Your task to perform on an android device: View the shopping cart on walmart. Add beats solo 3 to the cart on walmart, then select checkout. Image 0: 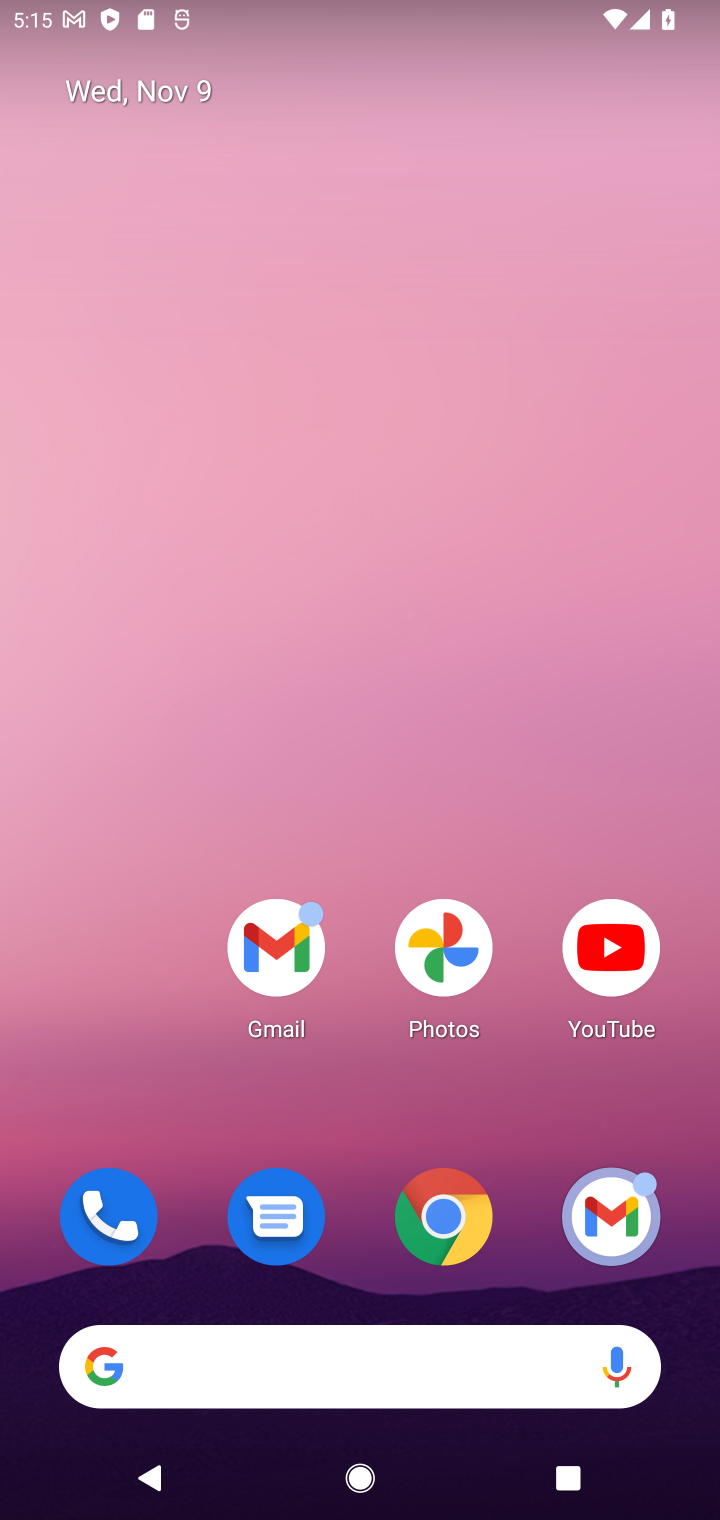
Step 0: drag from (347, 1136) to (374, 163)
Your task to perform on an android device: View the shopping cart on walmart. Add beats solo 3 to the cart on walmart, then select checkout. Image 1: 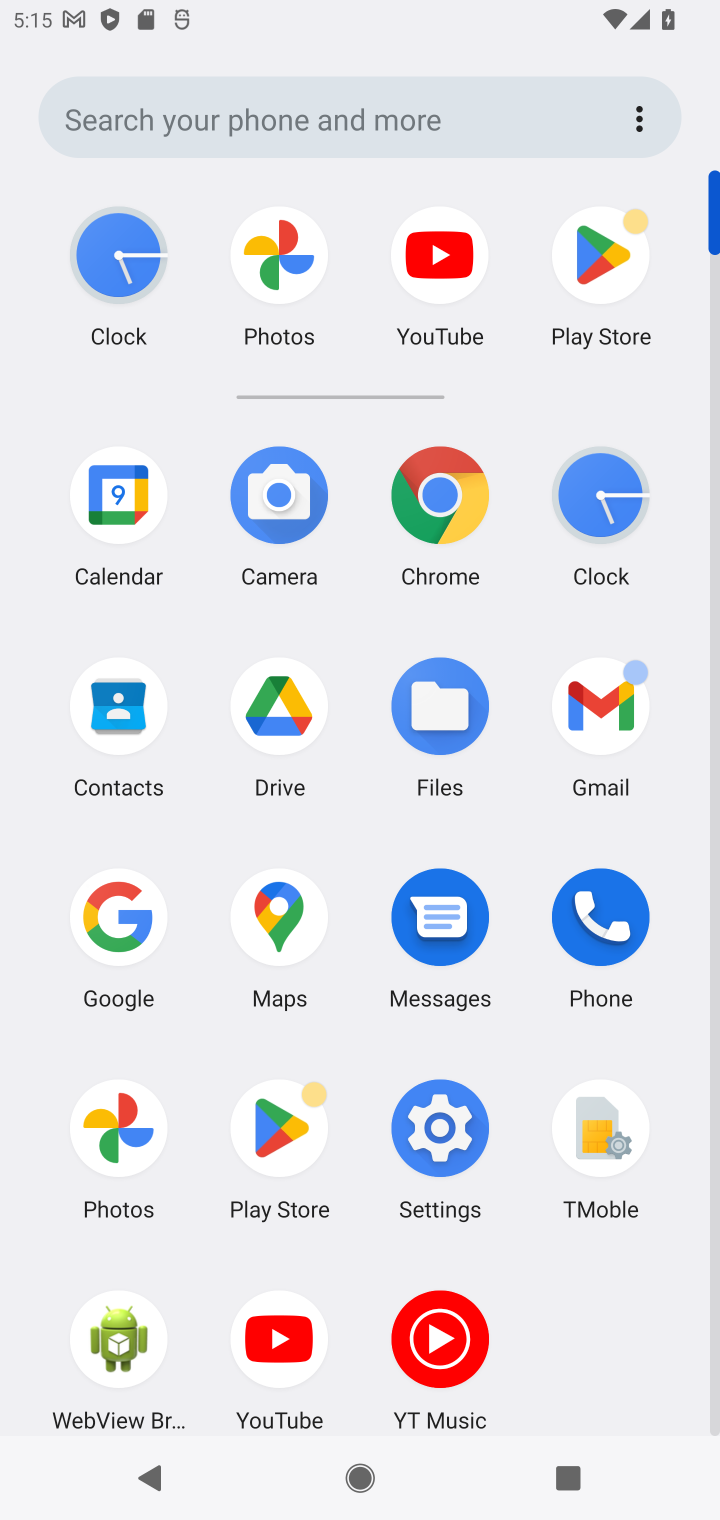
Step 1: click (442, 496)
Your task to perform on an android device: View the shopping cart on walmart. Add beats solo 3 to the cart on walmart, then select checkout. Image 2: 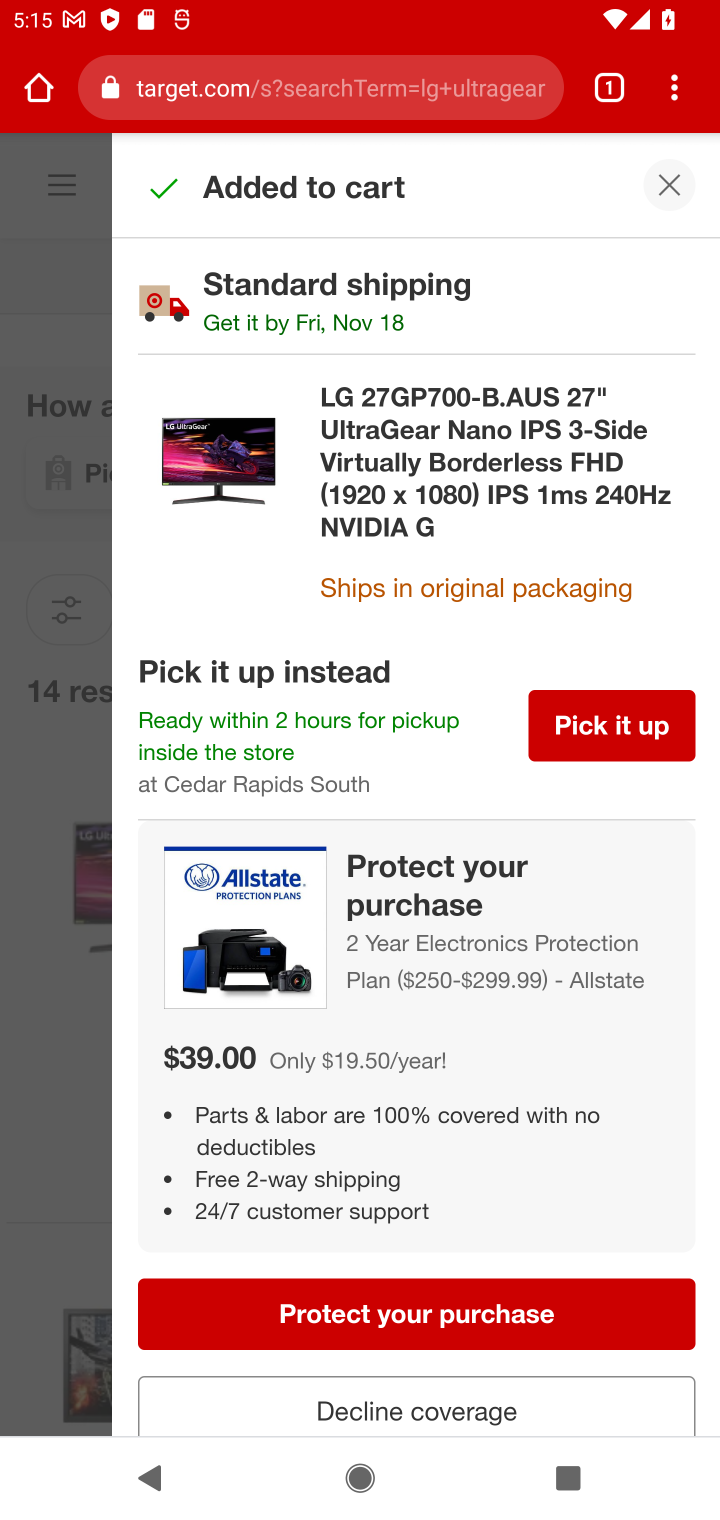
Step 2: click (325, 101)
Your task to perform on an android device: View the shopping cart on walmart. Add beats solo 3 to the cart on walmart, then select checkout. Image 3: 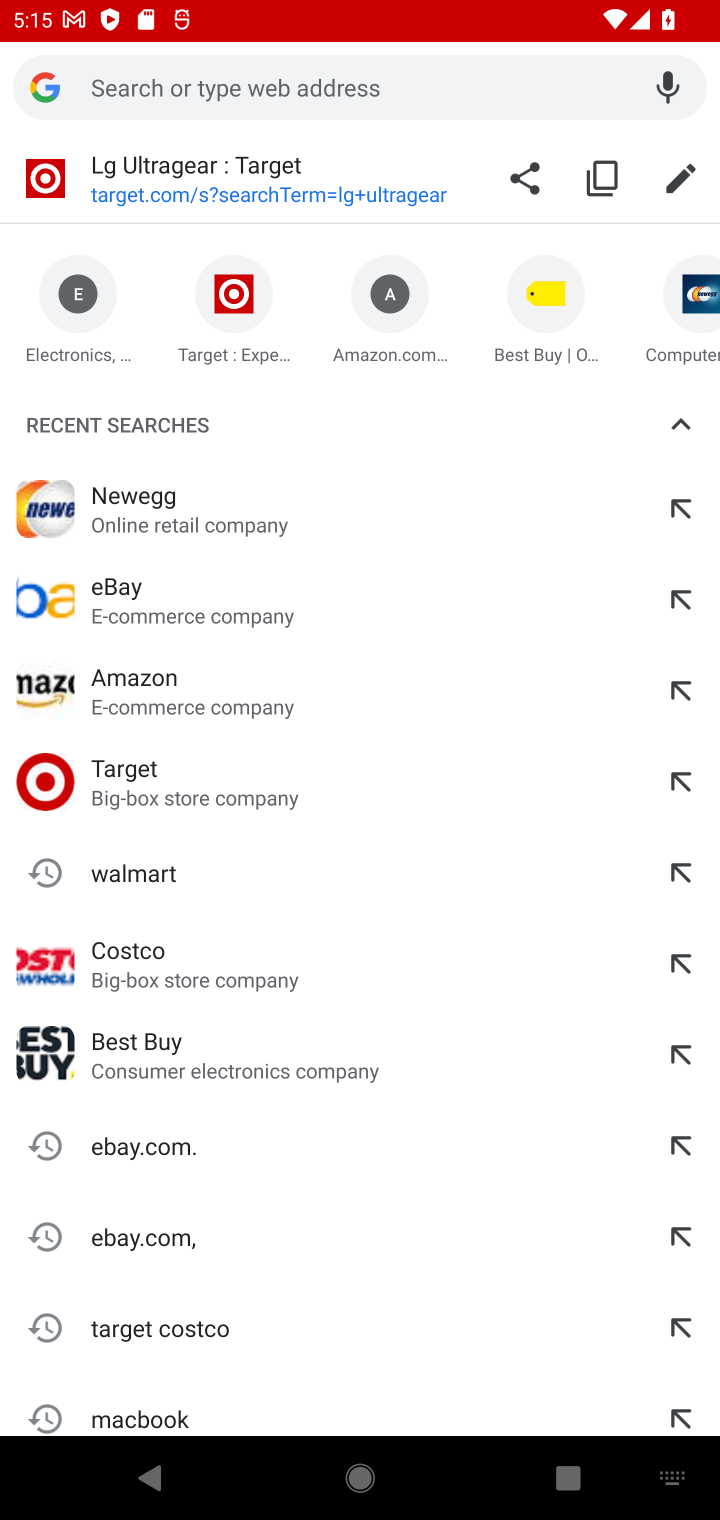
Step 3: type "walmart.com"
Your task to perform on an android device: View the shopping cart on walmart. Add beats solo 3 to the cart on walmart, then select checkout. Image 4: 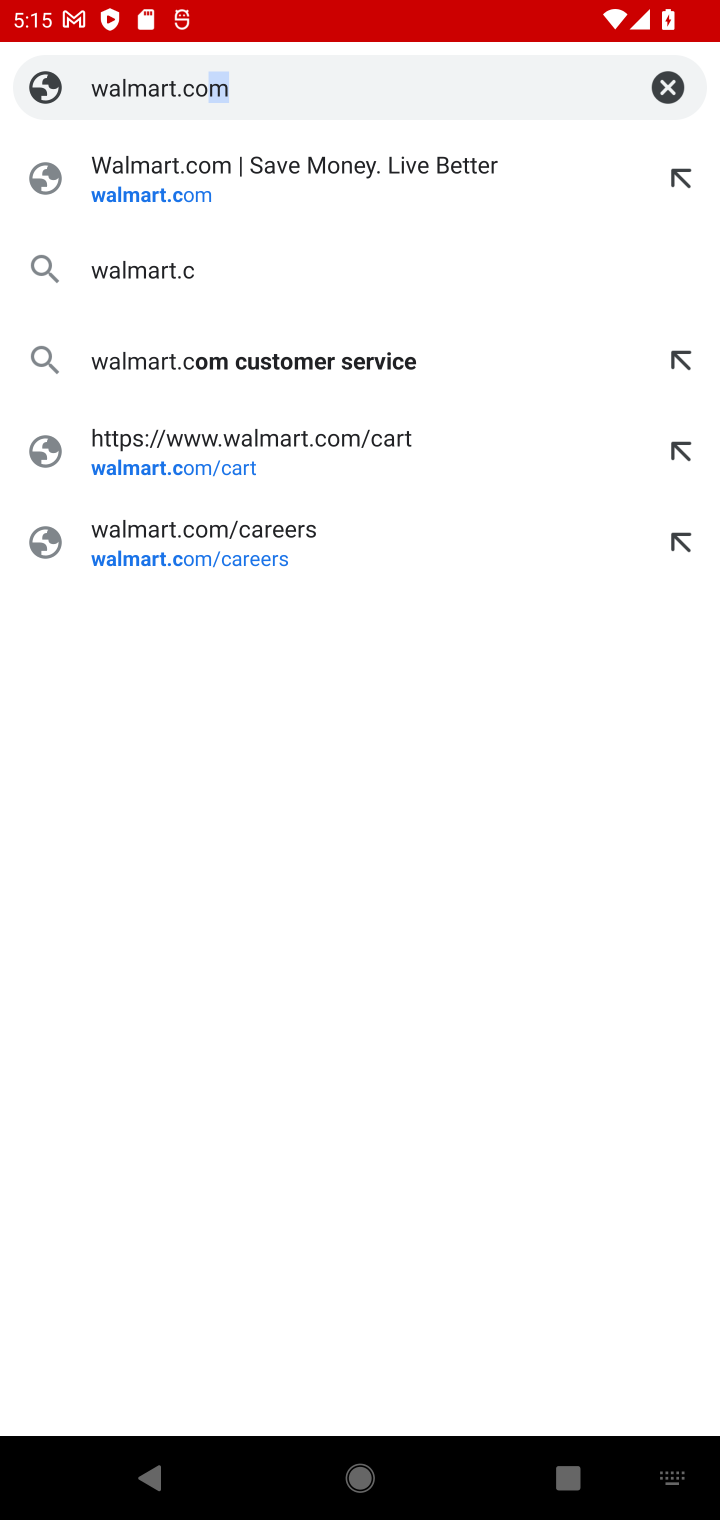
Step 4: press enter
Your task to perform on an android device: View the shopping cart on walmart. Add beats solo 3 to the cart on walmart, then select checkout. Image 5: 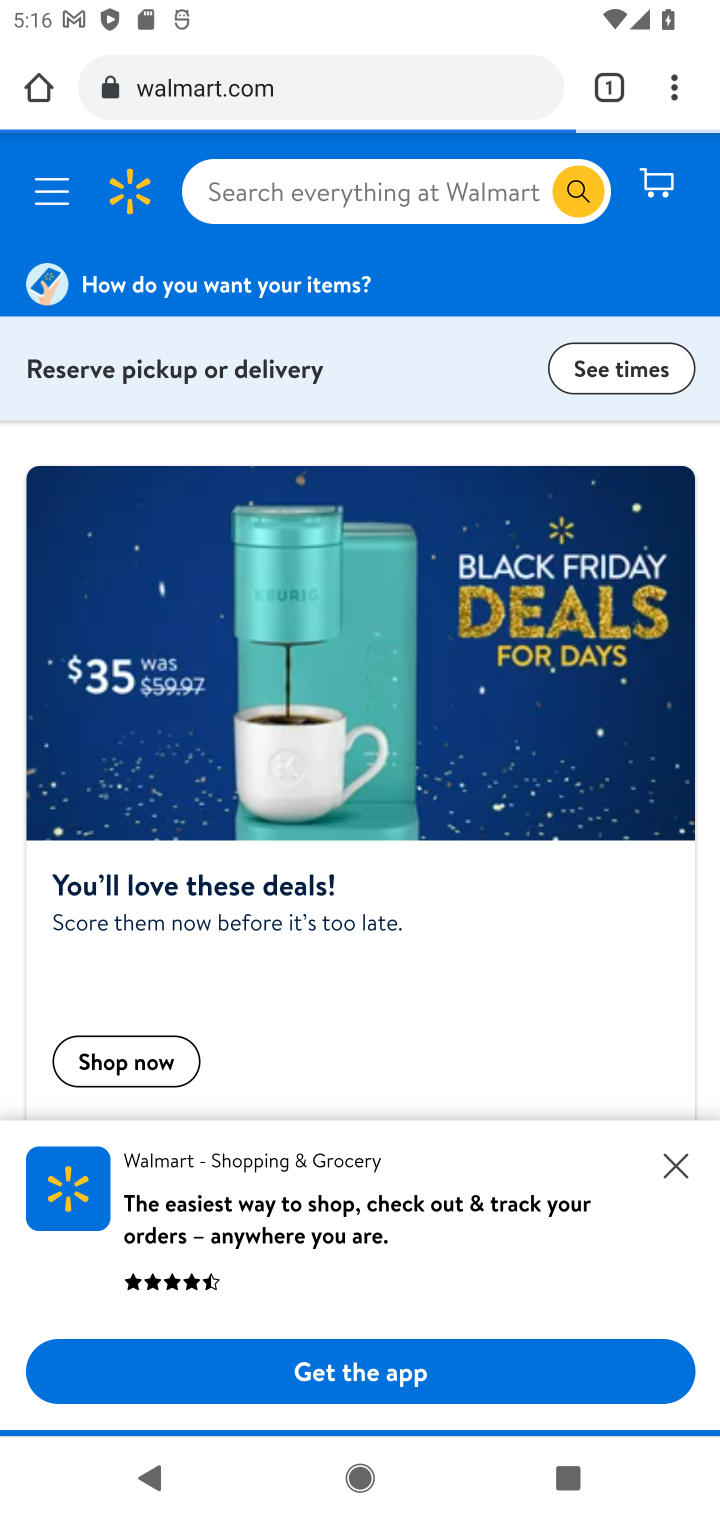
Step 5: click (665, 199)
Your task to perform on an android device: View the shopping cart on walmart. Add beats solo 3 to the cart on walmart, then select checkout. Image 6: 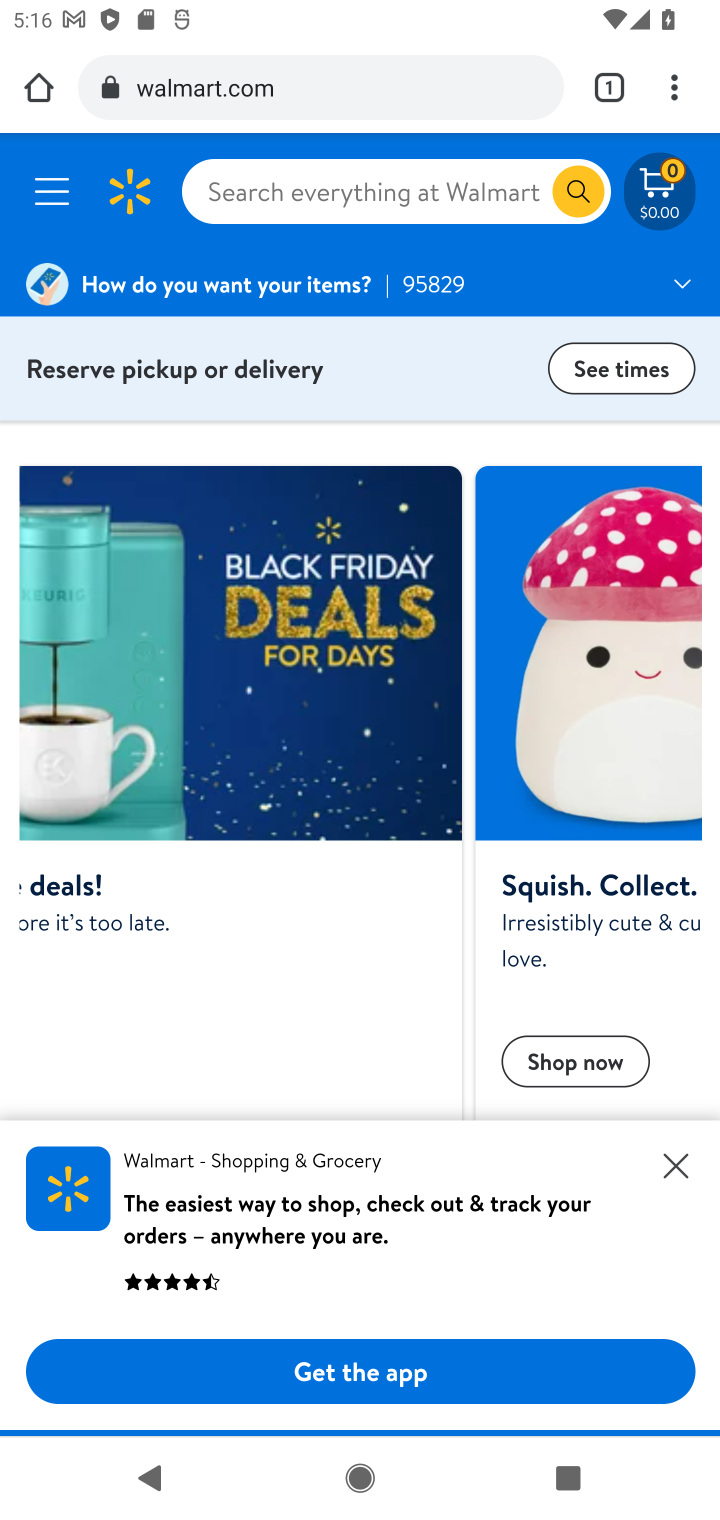
Step 6: click (656, 188)
Your task to perform on an android device: View the shopping cart on walmart. Add beats solo 3 to the cart on walmart, then select checkout. Image 7: 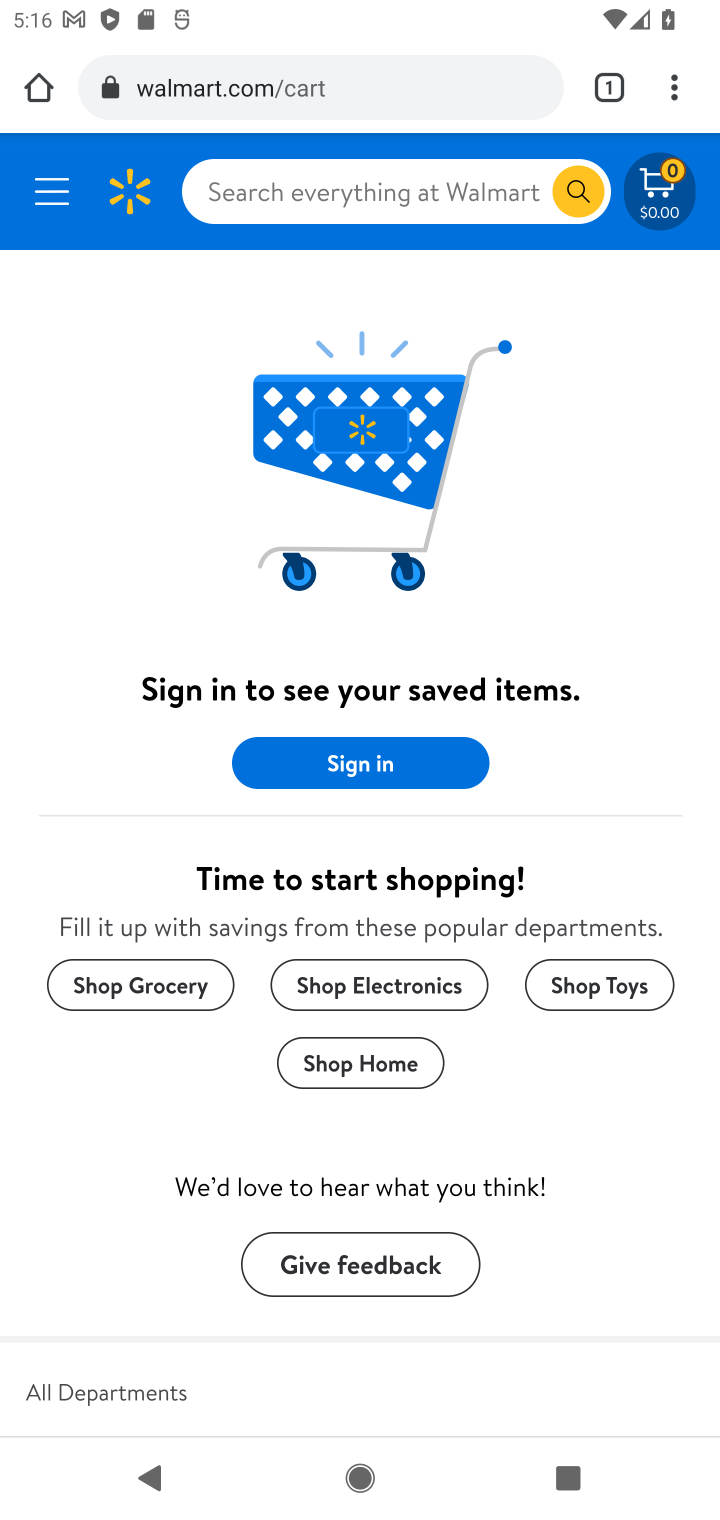
Step 7: click (465, 189)
Your task to perform on an android device: View the shopping cart on walmart. Add beats solo 3 to the cart on walmart, then select checkout. Image 8: 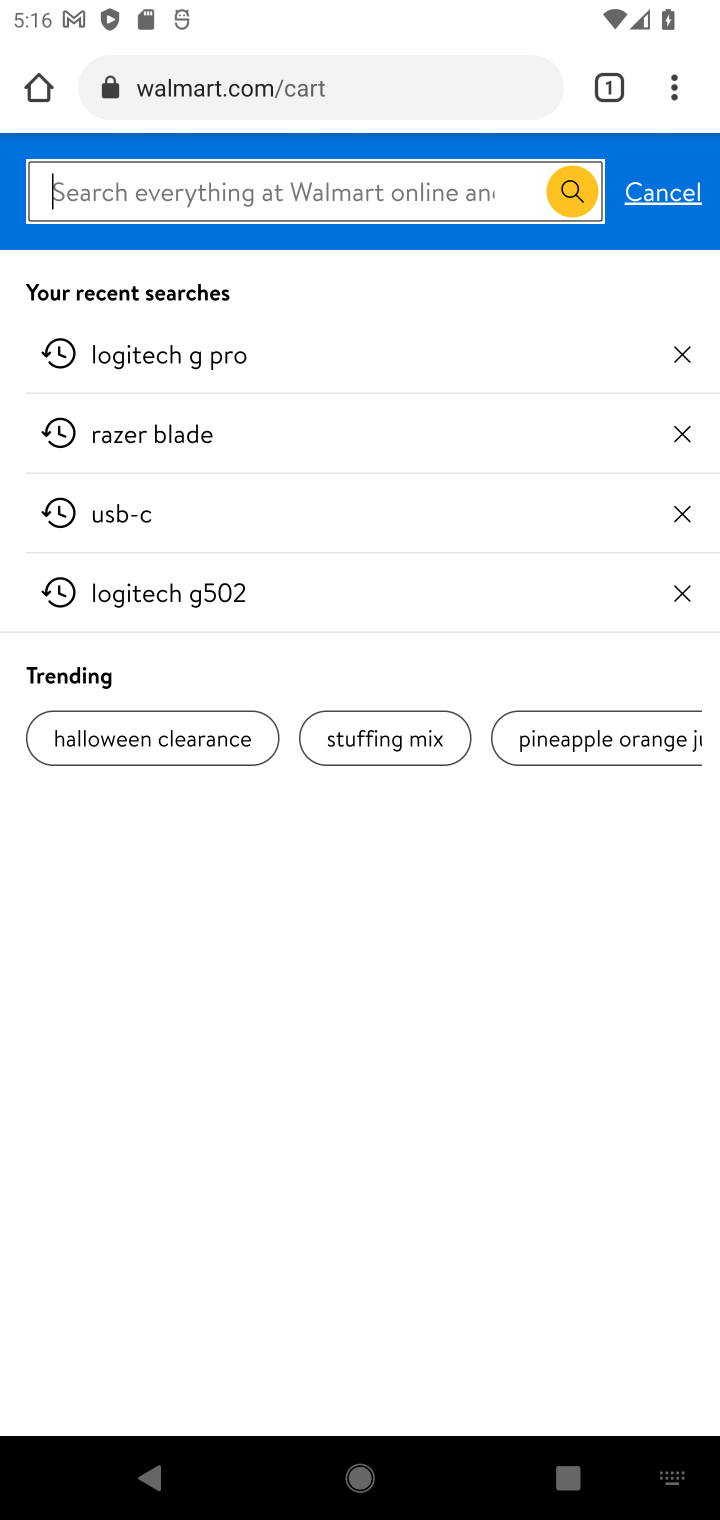
Step 8: type "beats solo 3"
Your task to perform on an android device: View the shopping cart on walmart. Add beats solo 3 to the cart on walmart, then select checkout. Image 9: 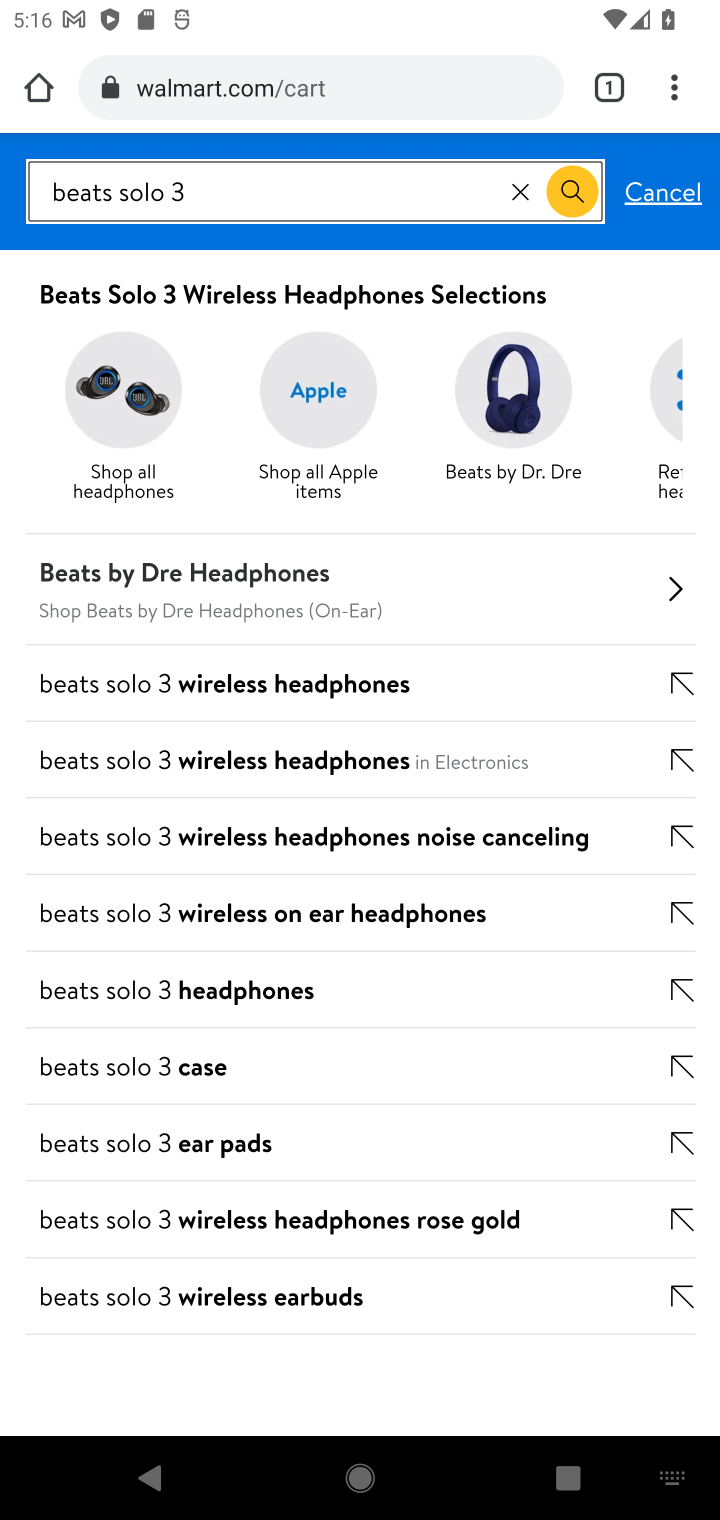
Step 9: press enter
Your task to perform on an android device: View the shopping cart on walmart. Add beats solo 3 to the cart on walmart, then select checkout. Image 10: 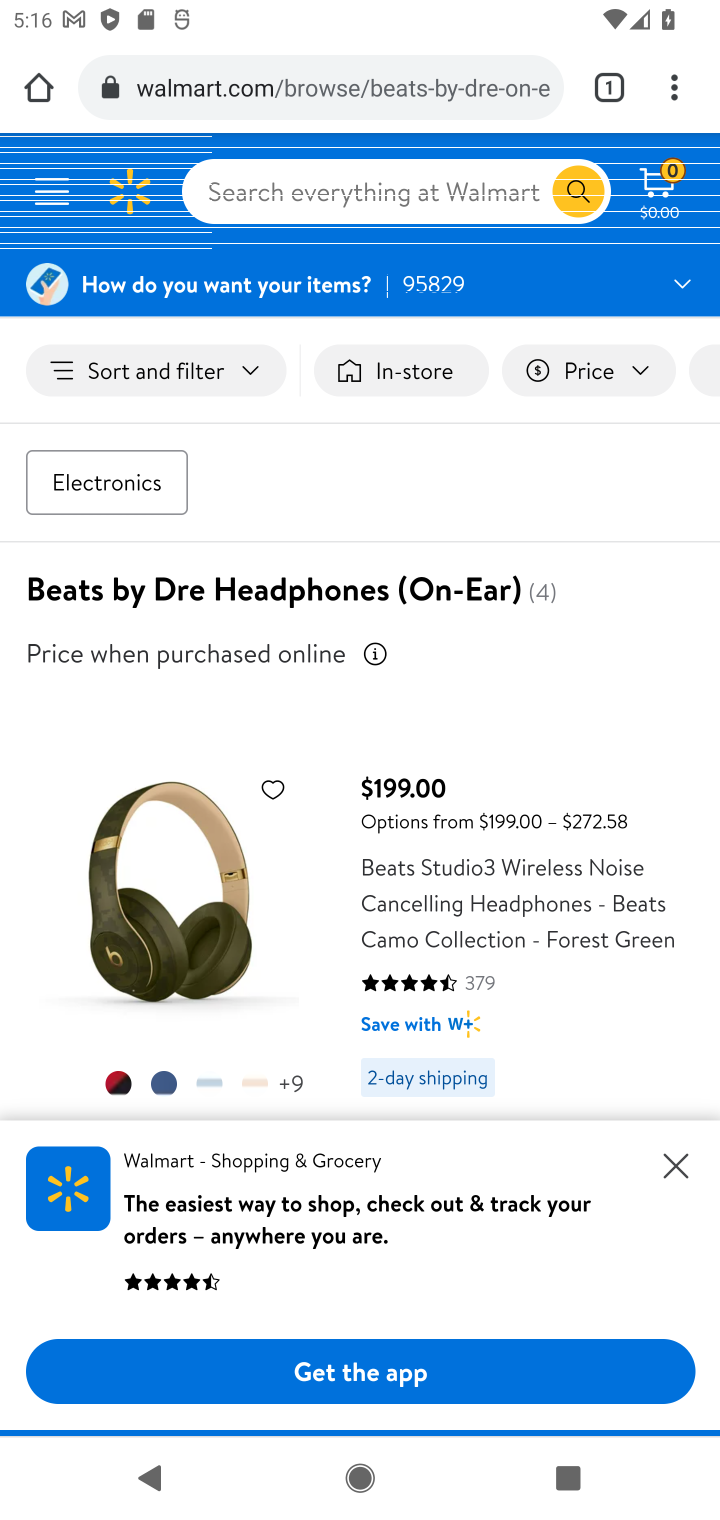
Step 10: drag from (531, 1033) to (522, 559)
Your task to perform on an android device: View the shopping cart on walmart. Add beats solo 3 to the cart on walmart, then select checkout. Image 11: 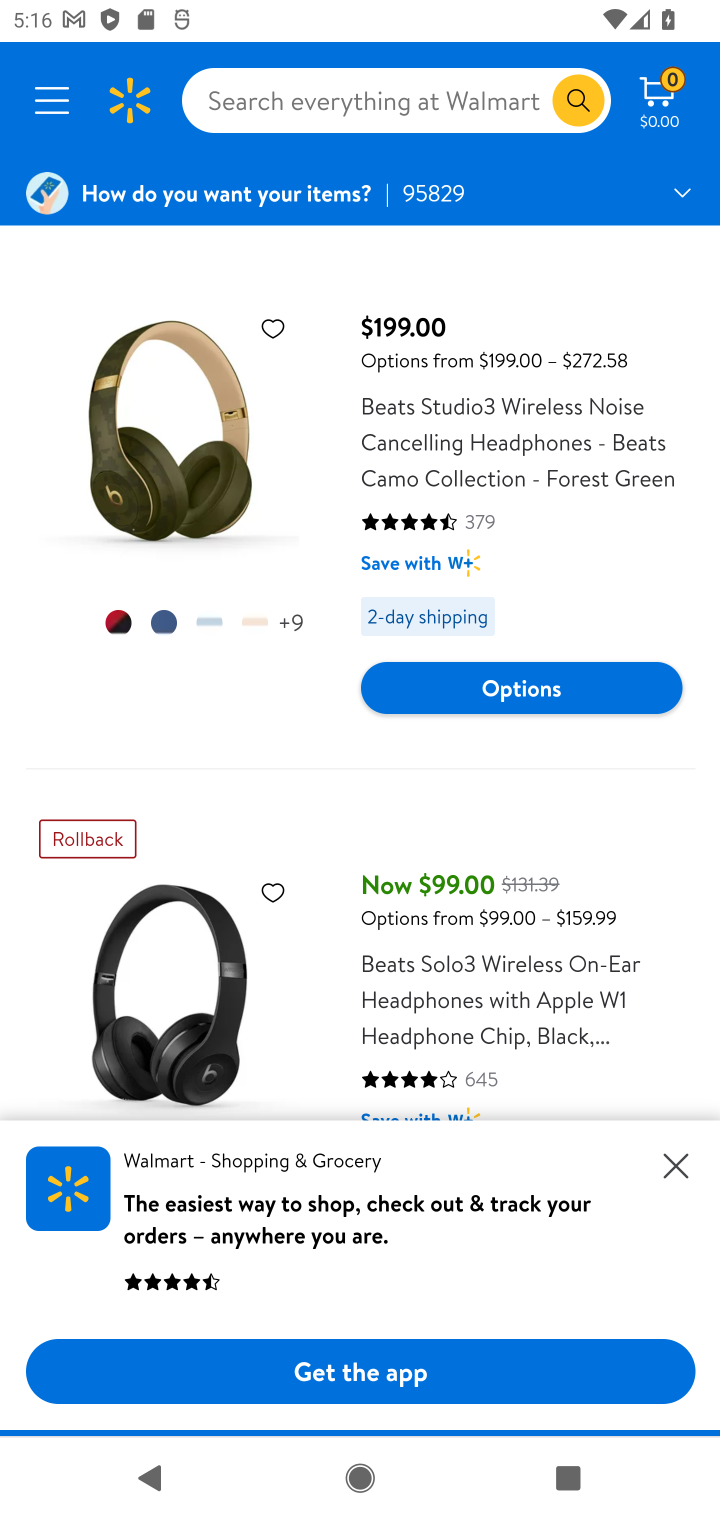
Step 11: drag from (250, 605) to (234, 713)
Your task to perform on an android device: View the shopping cart on walmart. Add beats solo 3 to the cart on walmart, then select checkout. Image 12: 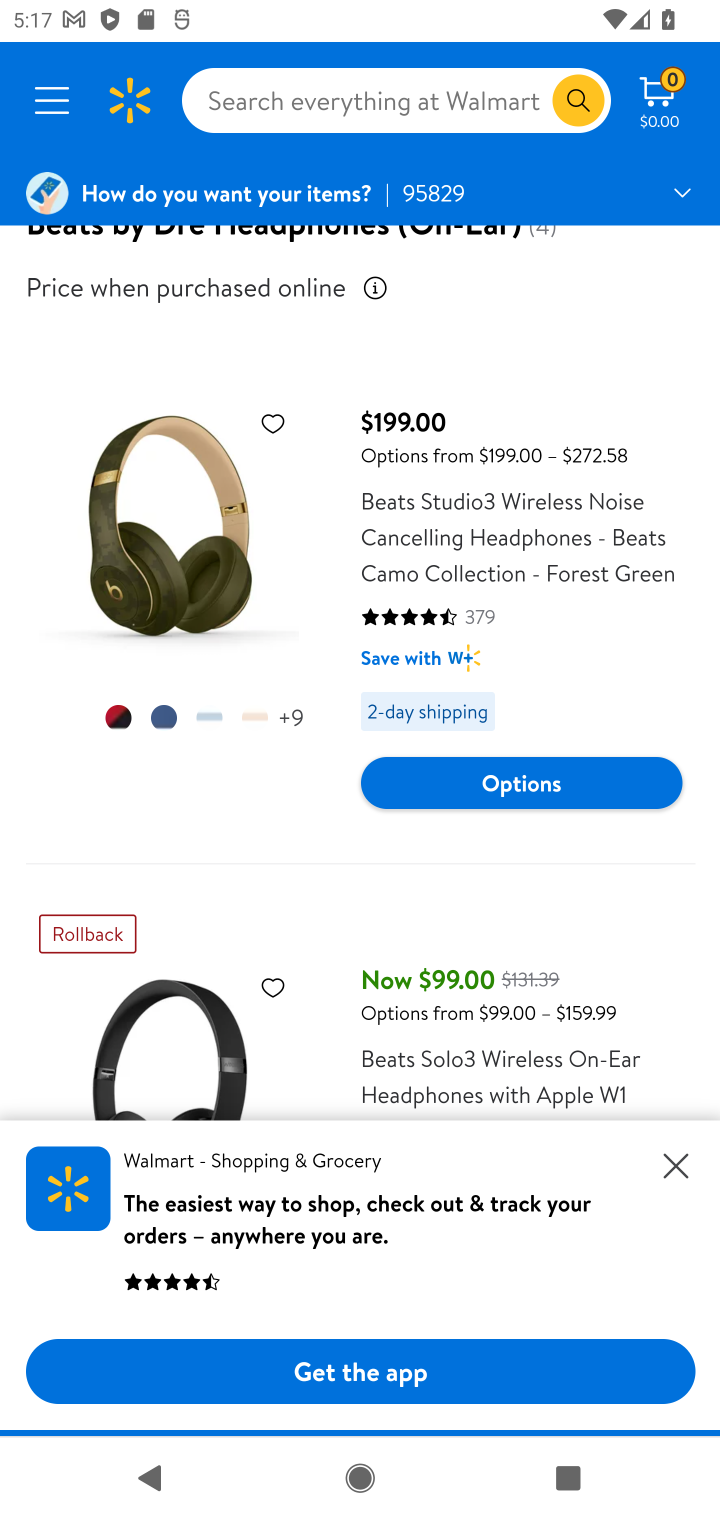
Step 12: drag from (269, 885) to (312, 537)
Your task to perform on an android device: View the shopping cart on walmart. Add beats solo 3 to the cart on walmart, then select checkout. Image 13: 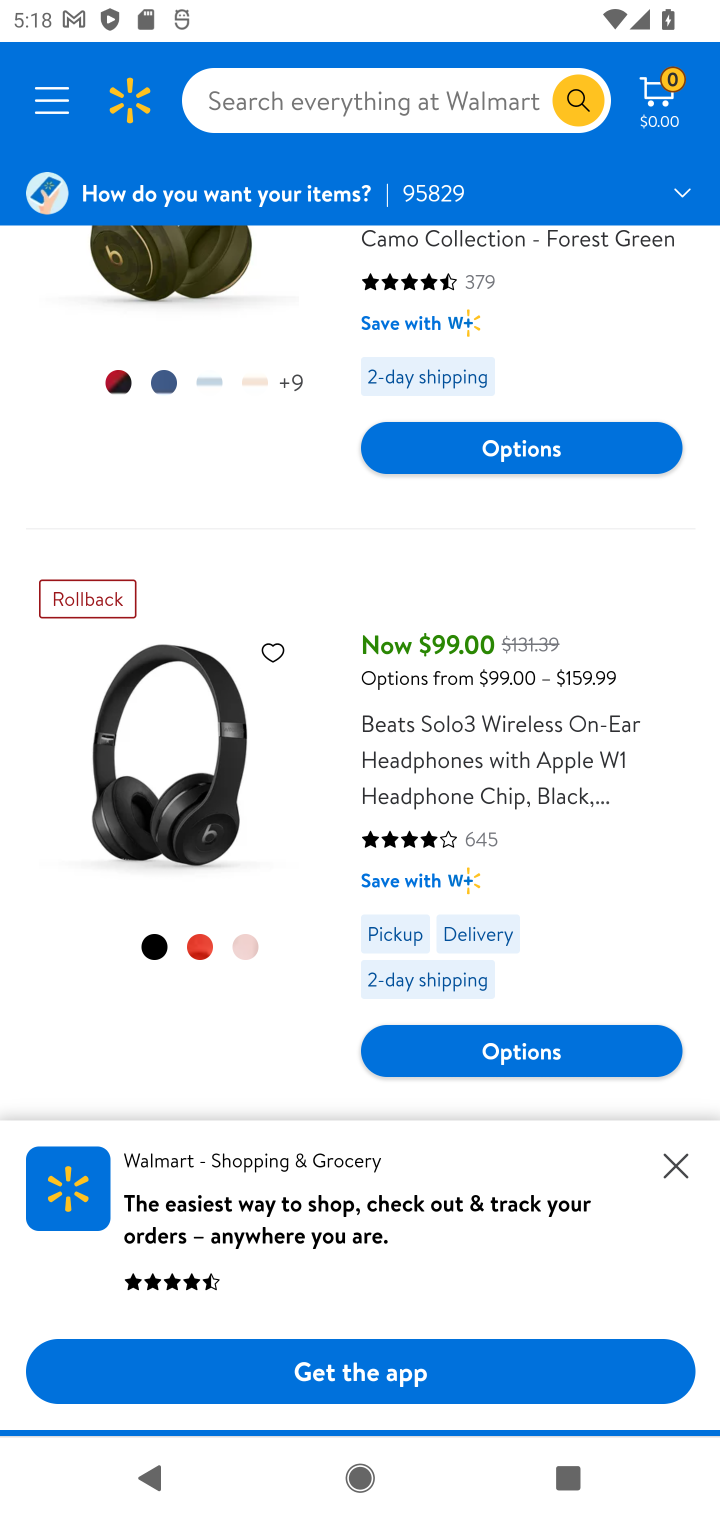
Step 13: click (544, 1058)
Your task to perform on an android device: View the shopping cart on walmart. Add beats solo 3 to the cart on walmart, then select checkout. Image 14: 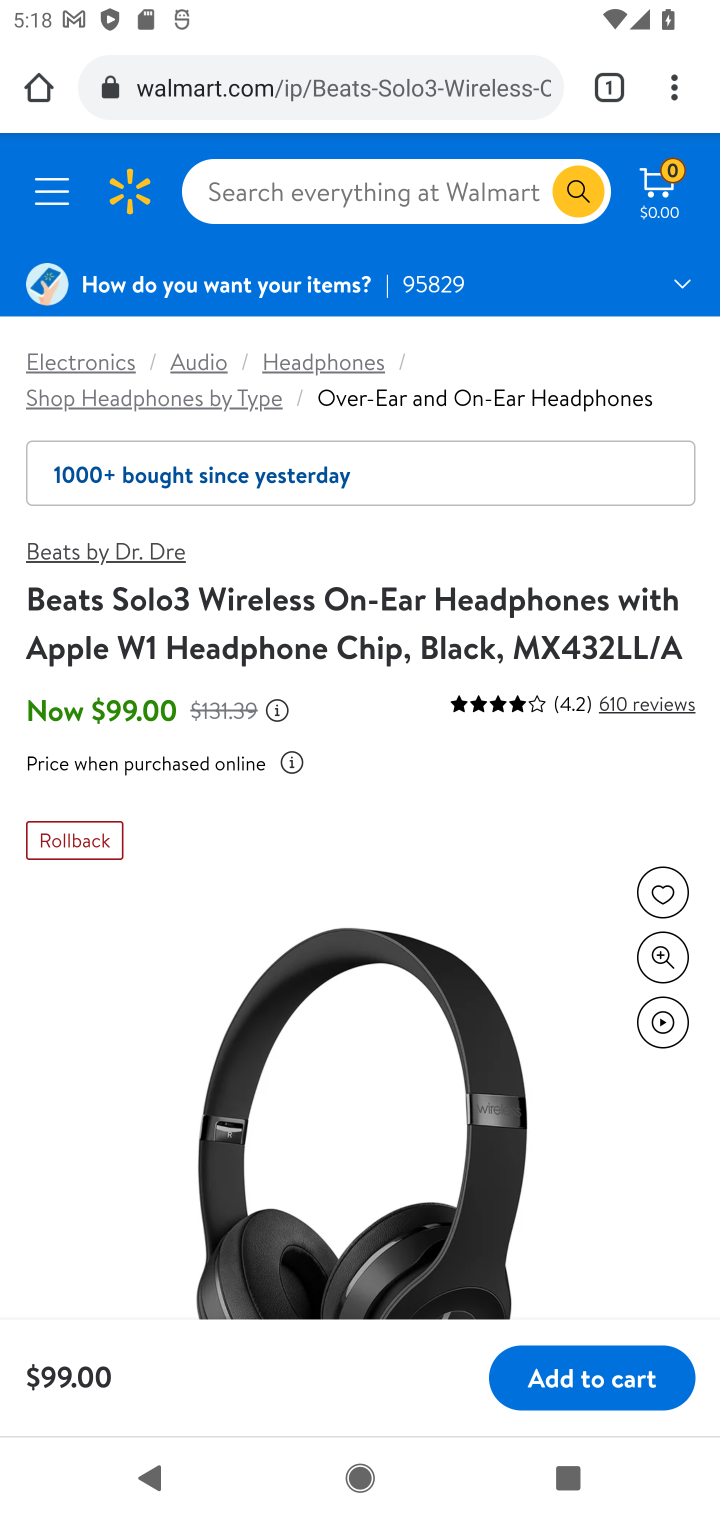
Step 14: drag from (444, 1169) to (497, 591)
Your task to perform on an android device: View the shopping cart on walmart. Add beats solo 3 to the cart on walmart, then select checkout. Image 15: 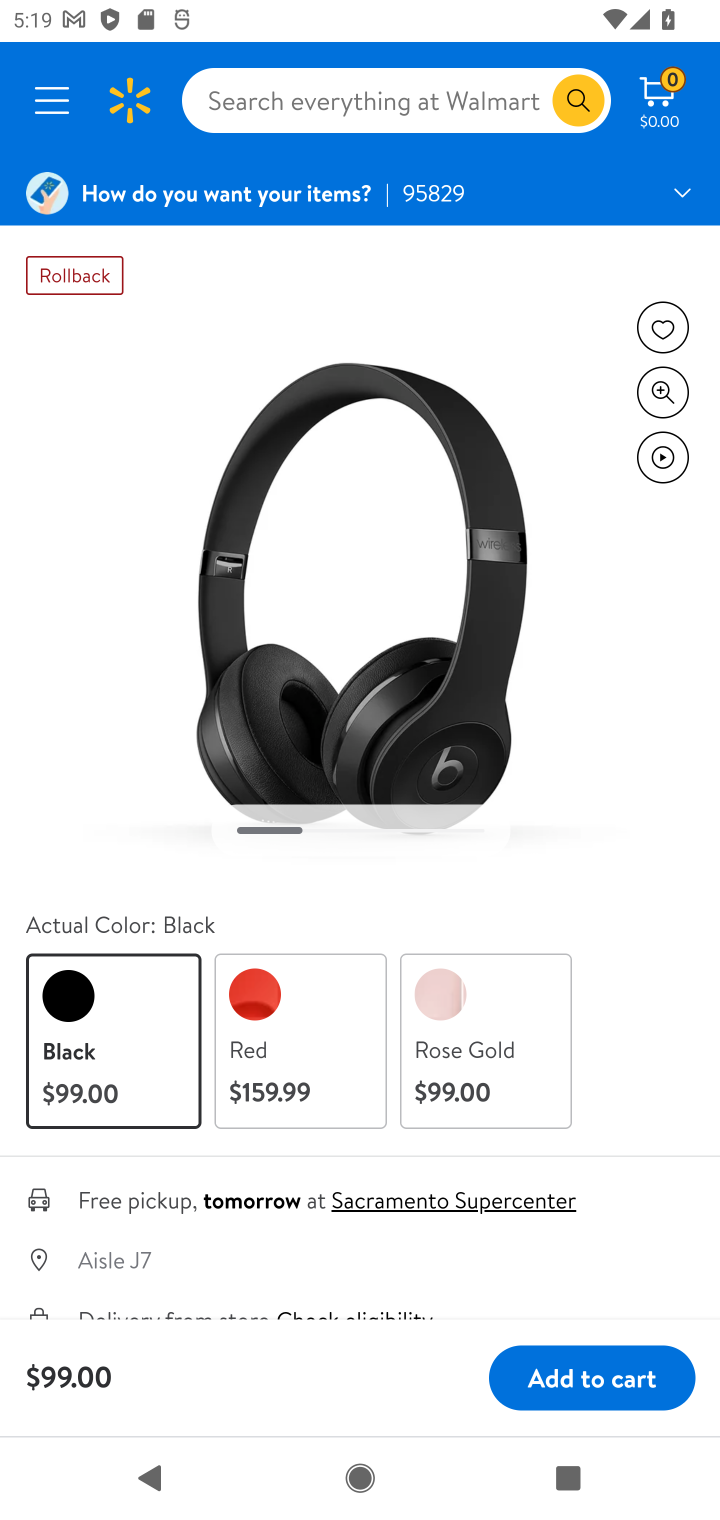
Step 15: click (608, 1374)
Your task to perform on an android device: View the shopping cart on walmart. Add beats solo 3 to the cart on walmart, then select checkout. Image 16: 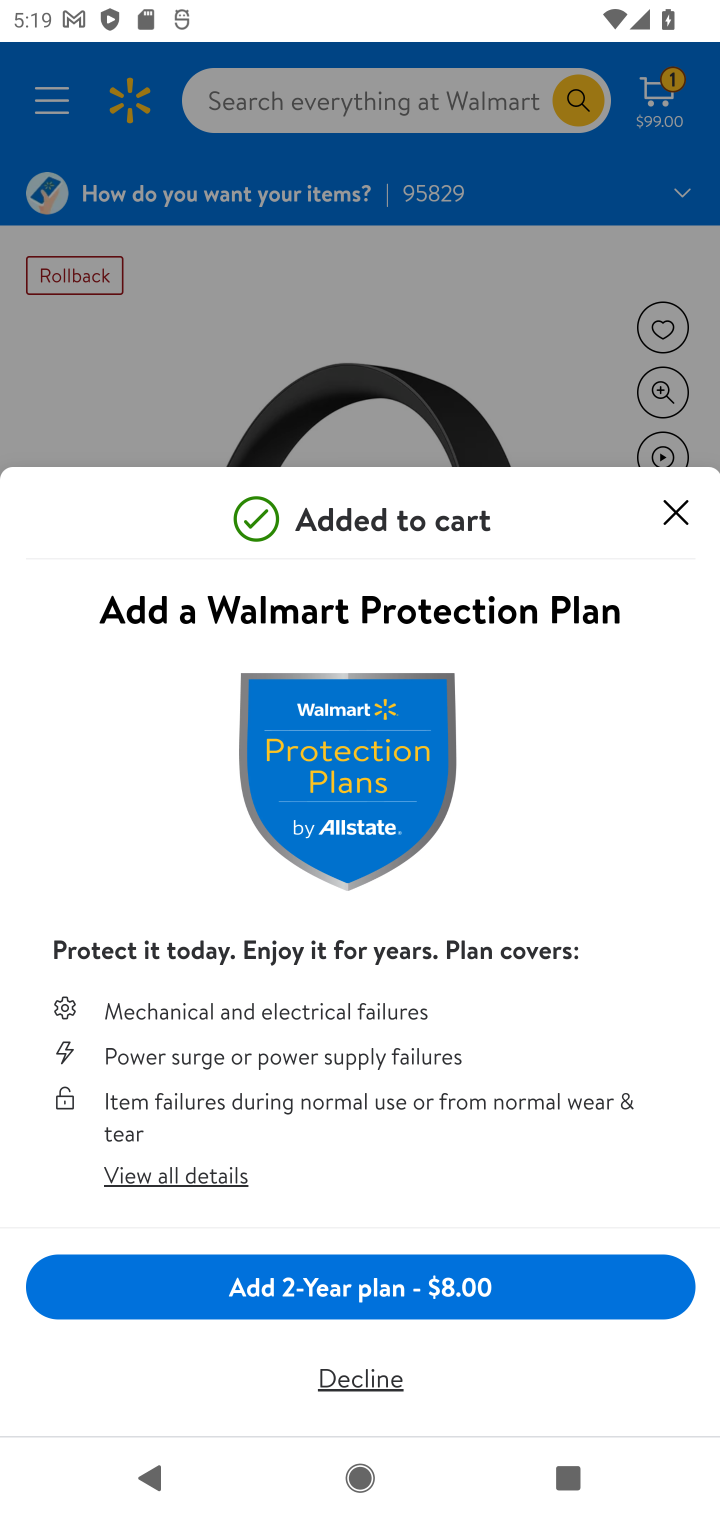
Step 16: click (683, 508)
Your task to perform on an android device: View the shopping cart on walmart. Add beats solo 3 to the cart on walmart, then select checkout. Image 17: 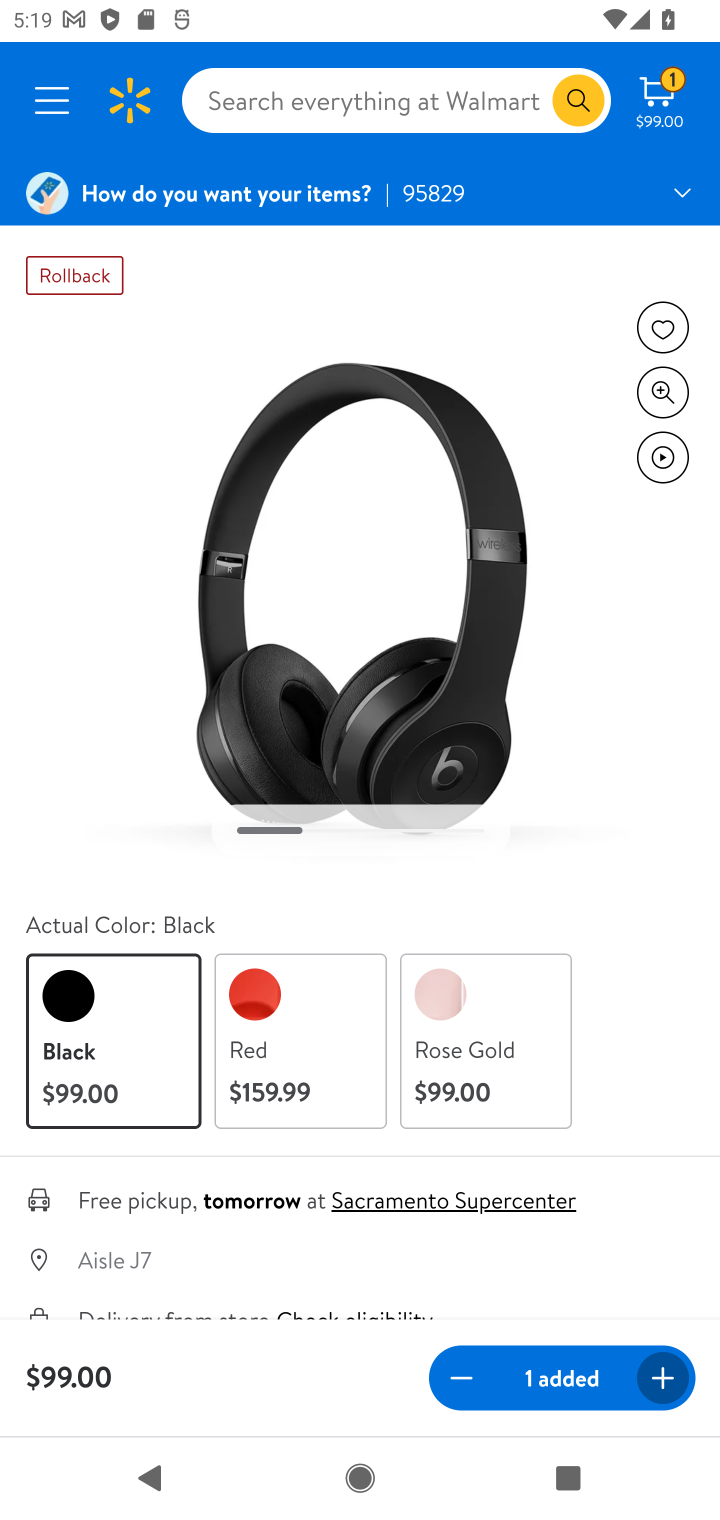
Step 17: click (667, 105)
Your task to perform on an android device: View the shopping cart on walmart. Add beats solo 3 to the cart on walmart, then select checkout. Image 18: 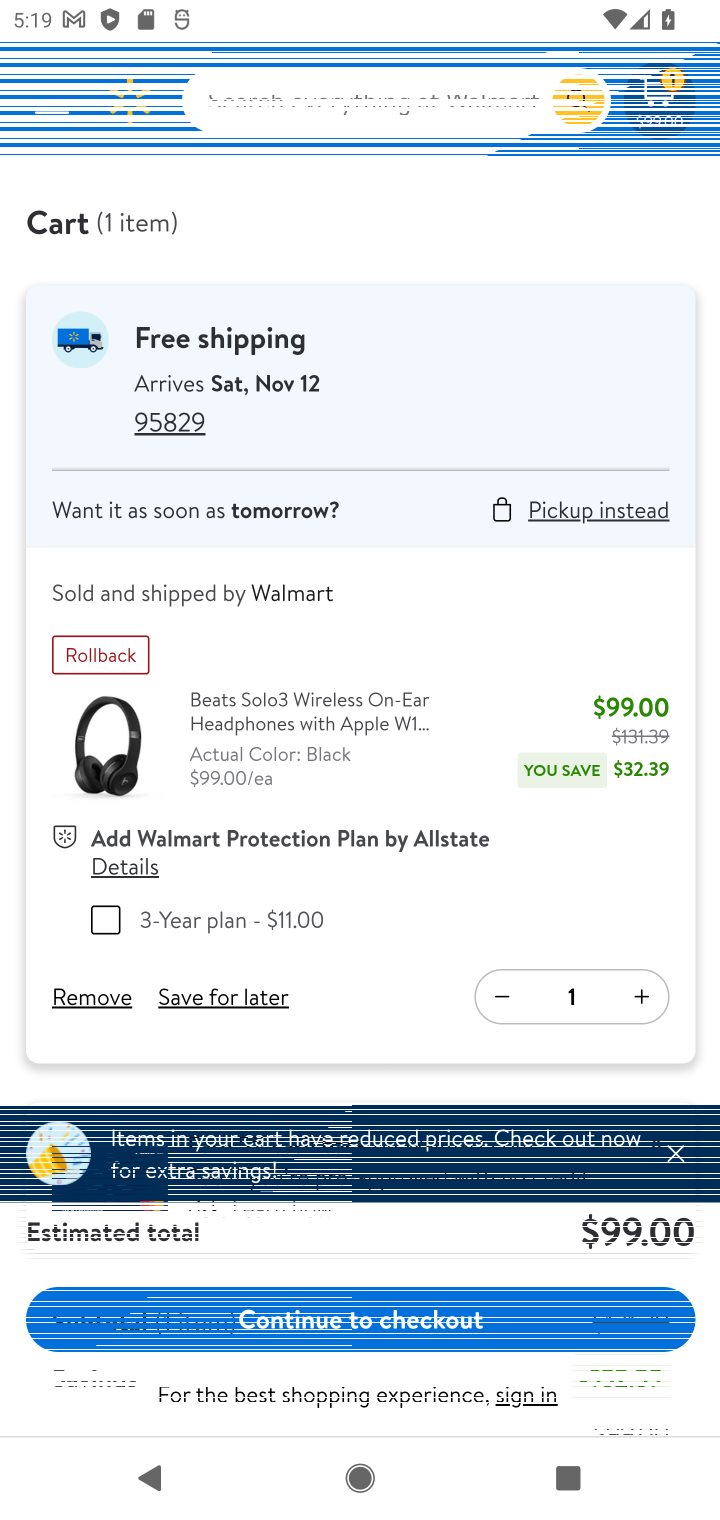
Step 18: drag from (408, 978) to (488, 628)
Your task to perform on an android device: View the shopping cart on walmart. Add beats solo 3 to the cart on walmart, then select checkout. Image 19: 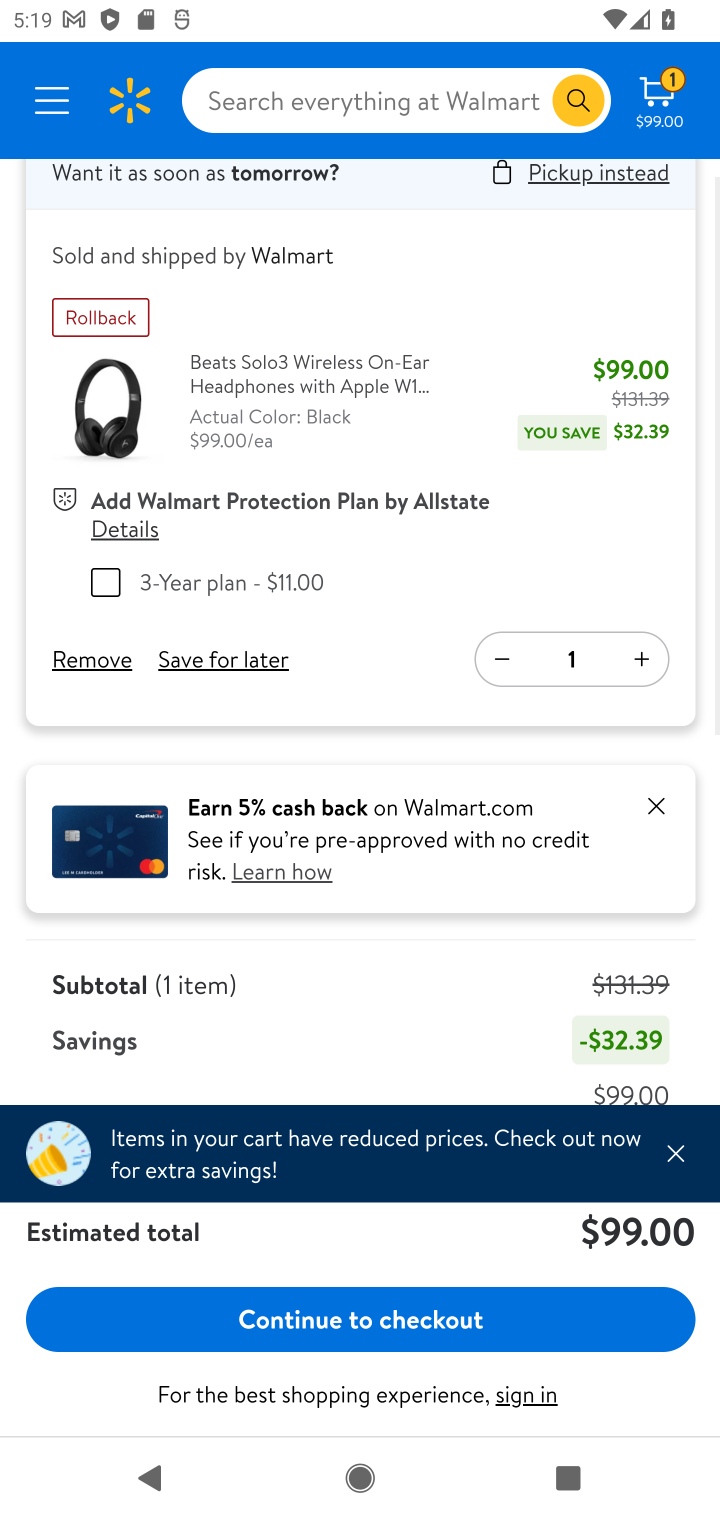
Step 19: click (474, 1317)
Your task to perform on an android device: View the shopping cart on walmart. Add beats solo 3 to the cart on walmart, then select checkout. Image 20: 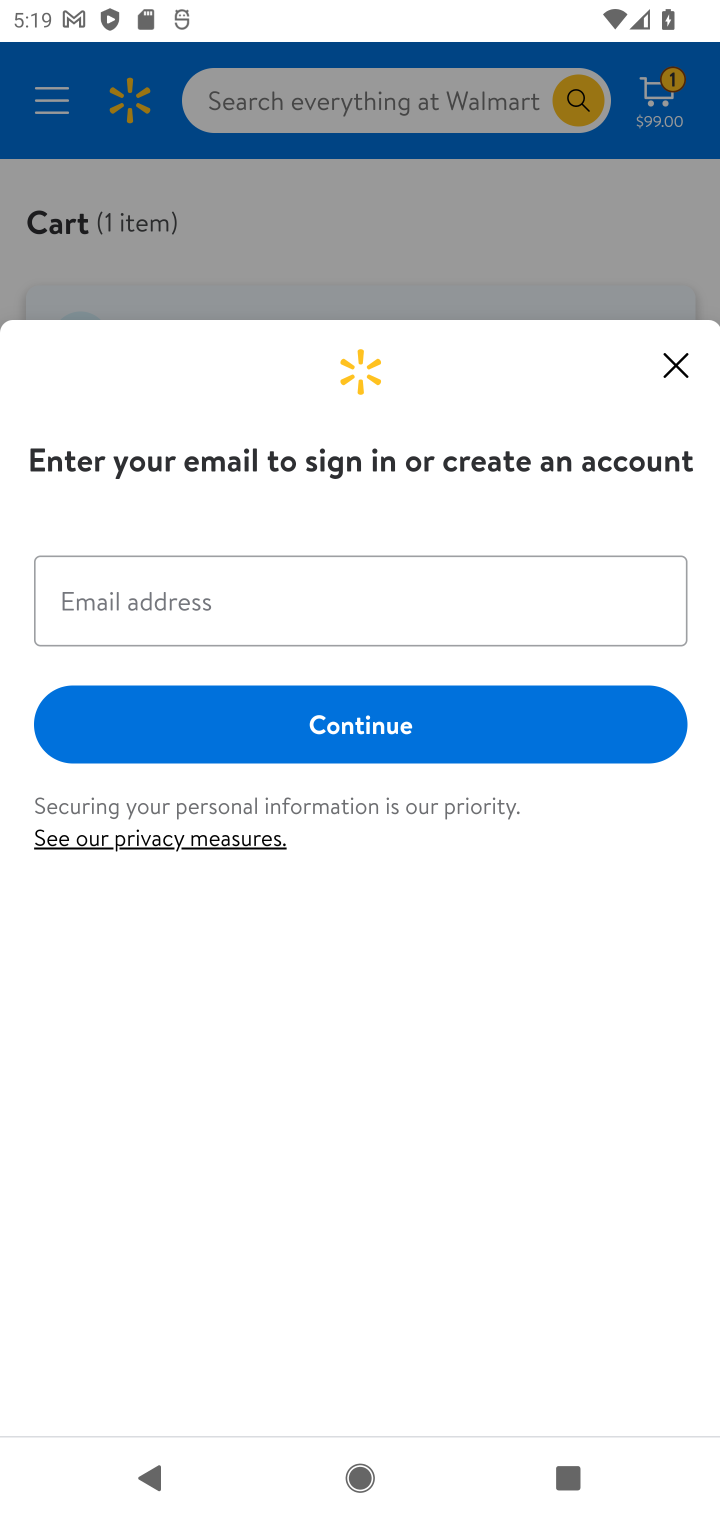
Step 20: task complete